Your task to perform on an android device: Open calendar and show me the first week of next month Image 0: 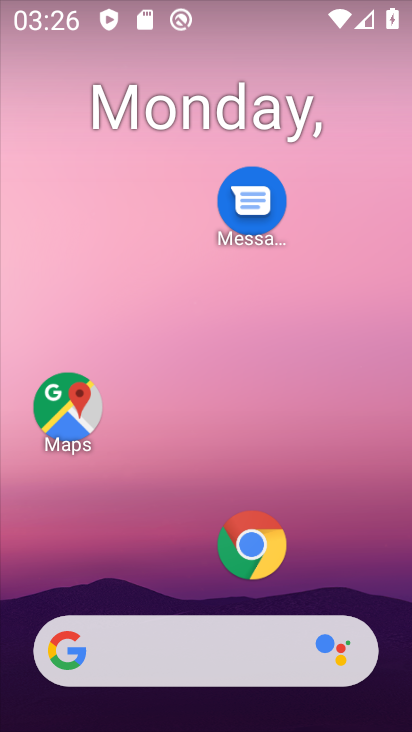
Step 0: drag from (155, 500) to (253, 116)
Your task to perform on an android device: Open calendar and show me the first week of next month Image 1: 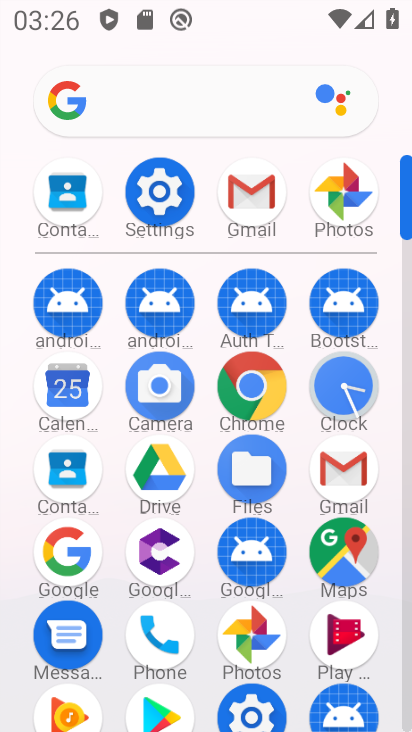
Step 1: click (50, 385)
Your task to perform on an android device: Open calendar and show me the first week of next month Image 2: 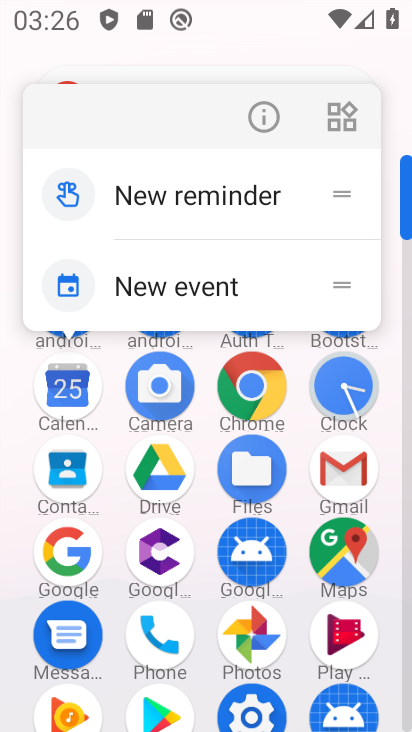
Step 2: click (83, 389)
Your task to perform on an android device: Open calendar and show me the first week of next month Image 3: 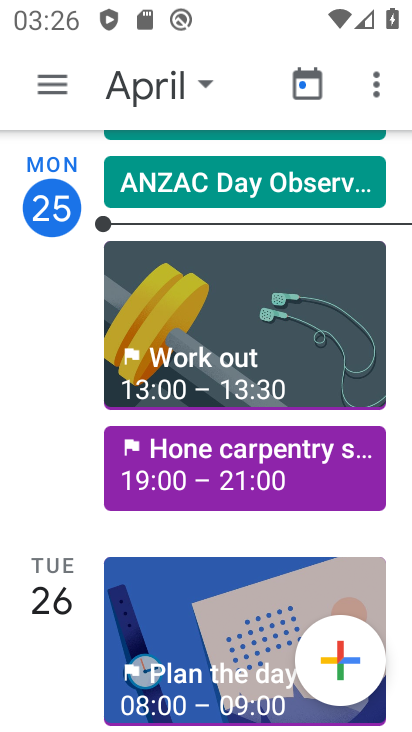
Step 3: click (196, 85)
Your task to perform on an android device: Open calendar and show me the first week of next month Image 4: 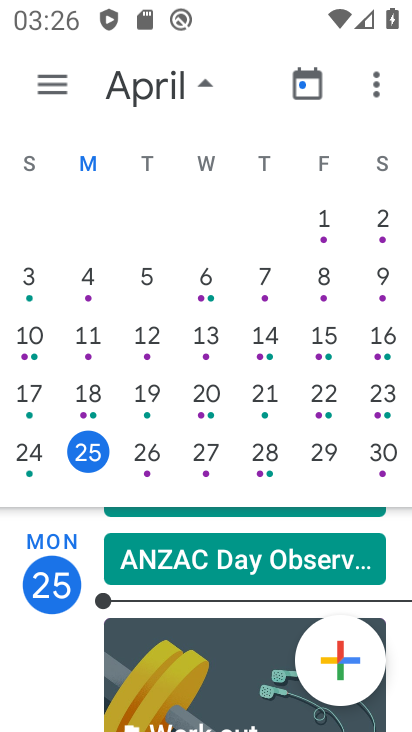
Step 4: drag from (380, 373) to (19, 384)
Your task to perform on an android device: Open calendar and show me the first week of next month Image 5: 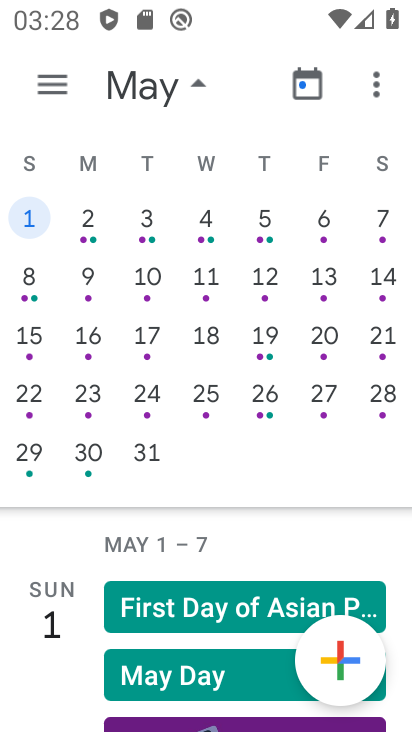
Step 5: click (81, 224)
Your task to perform on an android device: Open calendar and show me the first week of next month Image 6: 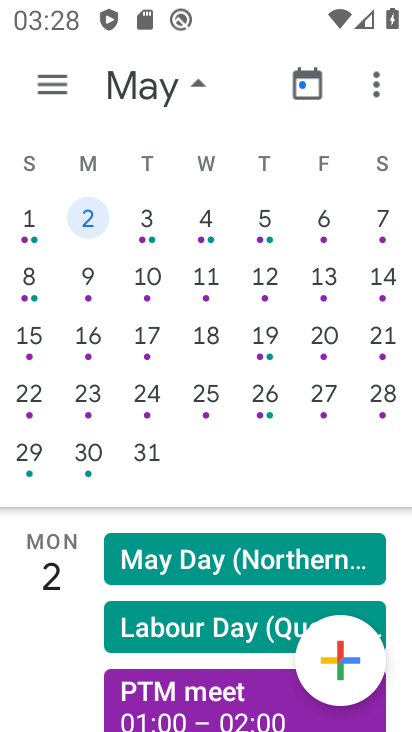
Step 6: task complete